Your task to perform on an android device: Open internet settings Image 0: 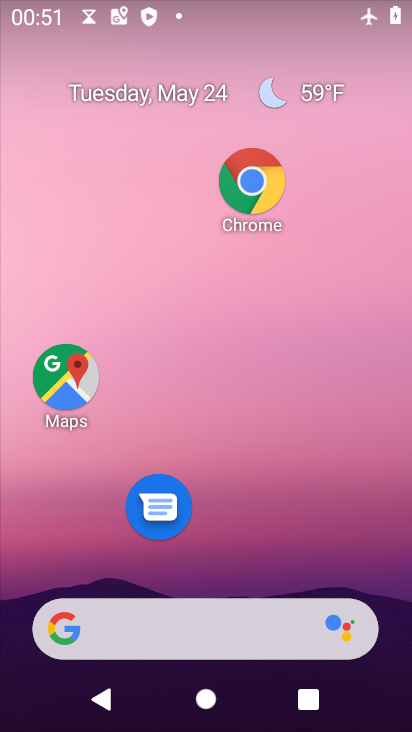
Step 0: drag from (303, 584) to (403, 210)
Your task to perform on an android device: Open internet settings Image 1: 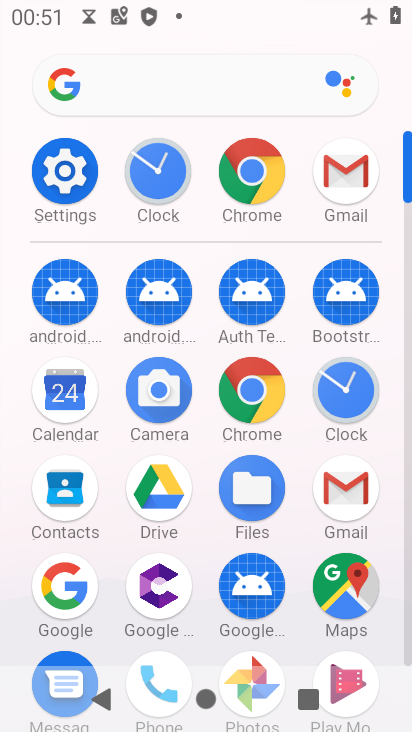
Step 1: click (58, 161)
Your task to perform on an android device: Open internet settings Image 2: 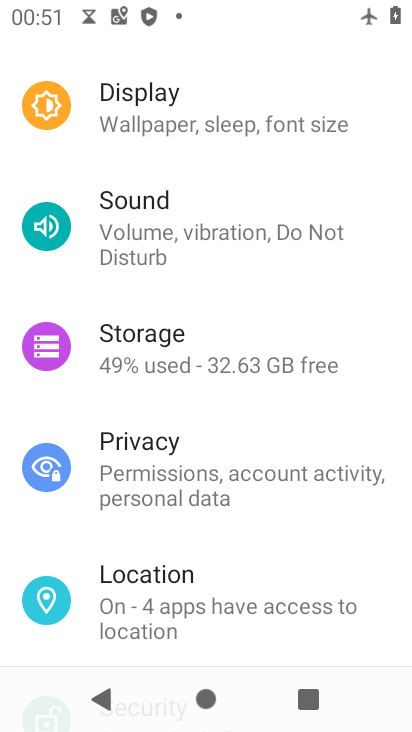
Step 2: drag from (205, 136) to (221, 611)
Your task to perform on an android device: Open internet settings Image 3: 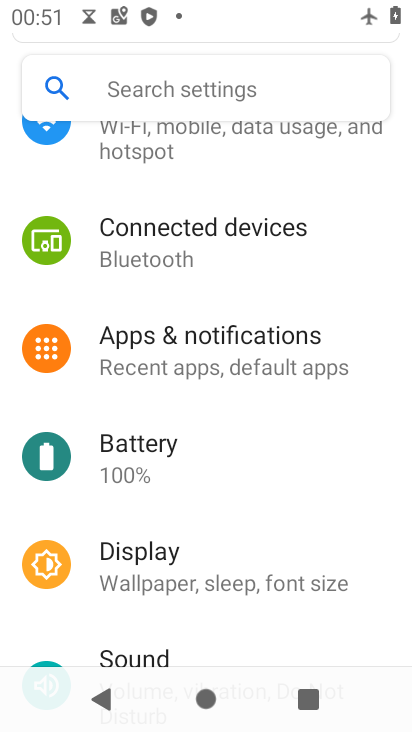
Step 3: drag from (225, 183) to (243, 576)
Your task to perform on an android device: Open internet settings Image 4: 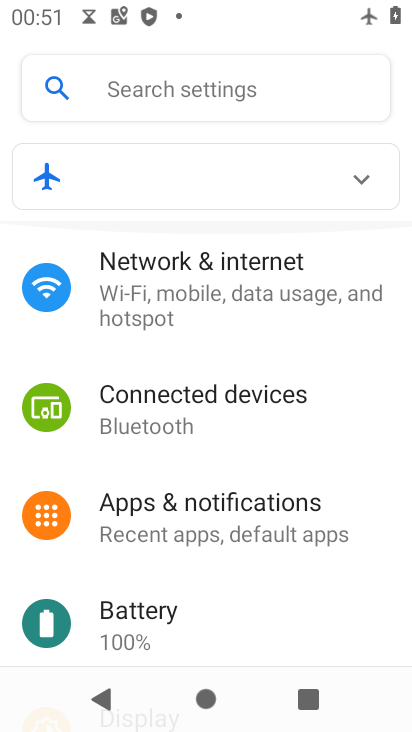
Step 4: click (173, 518)
Your task to perform on an android device: Open internet settings Image 5: 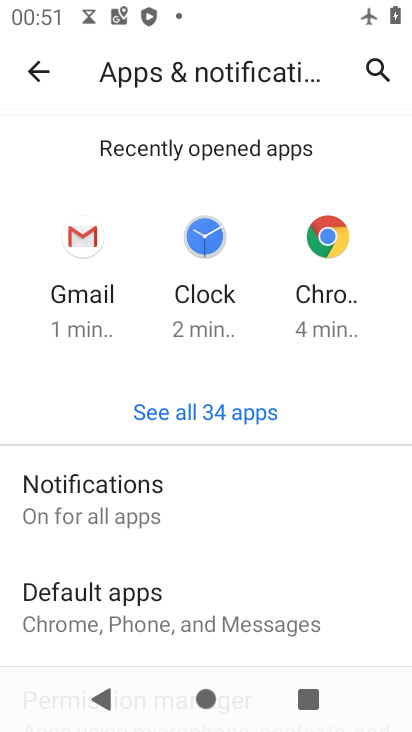
Step 5: task complete